Your task to perform on an android device: toggle javascript in the chrome app Image 0: 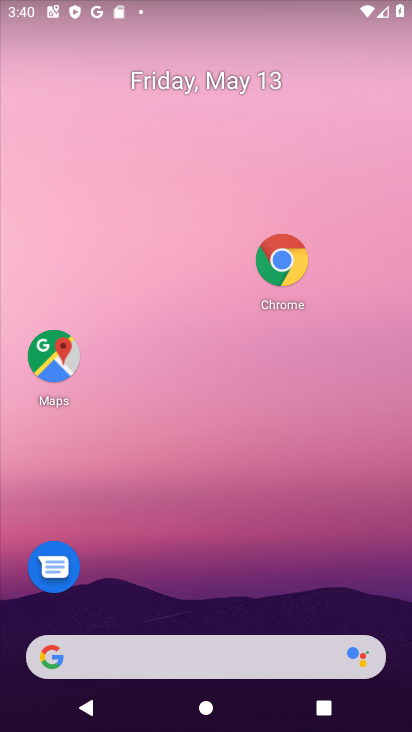
Step 0: drag from (293, 606) to (105, 86)
Your task to perform on an android device: toggle javascript in the chrome app Image 1: 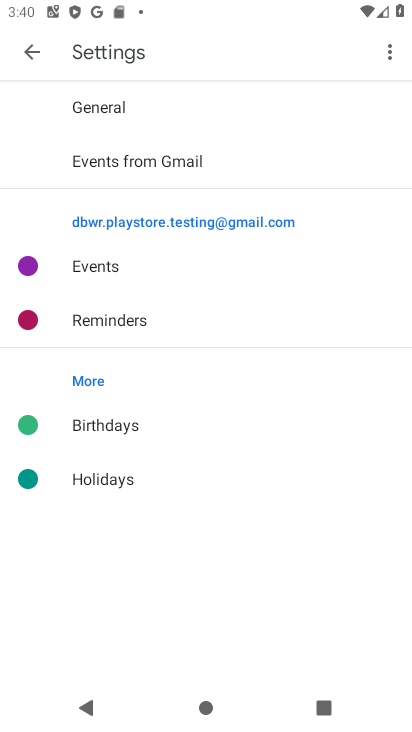
Step 1: press home button
Your task to perform on an android device: toggle javascript in the chrome app Image 2: 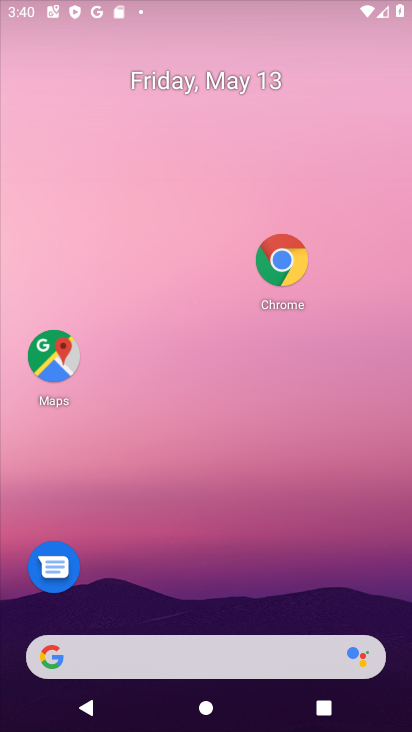
Step 2: drag from (228, 622) to (98, 109)
Your task to perform on an android device: toggle javascript in the chrome app Image 3: 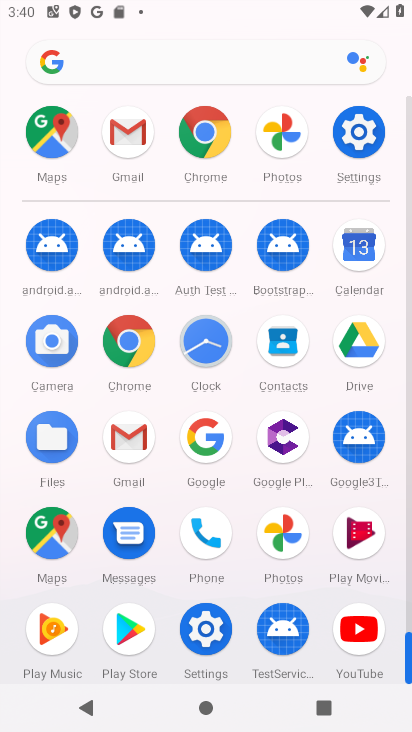
Step 3: click (201, 122)
Your task to perform on an android device: toggle javascript in the chrome app Image 4: 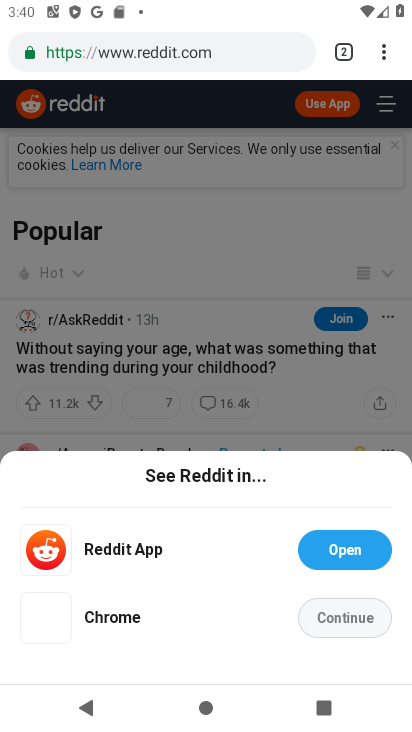
Step 4: click (390, 31)
Your task to perform on an android device: toggle javascript in the chrome app Image 5: 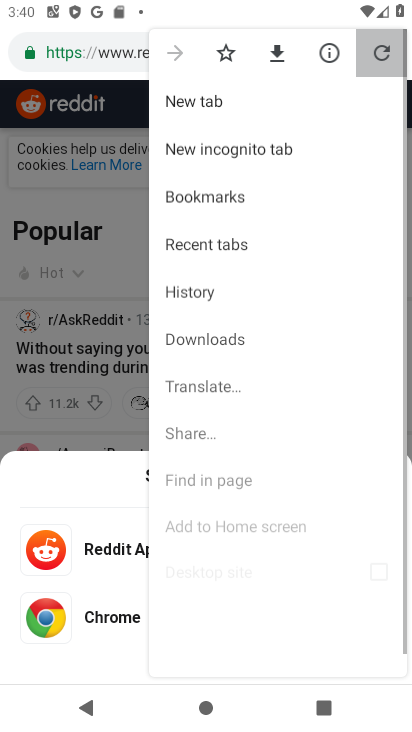
Step 5: click (378, 60)
Your task to perform on an android device: toggle javascript in the chrome app Image 6: 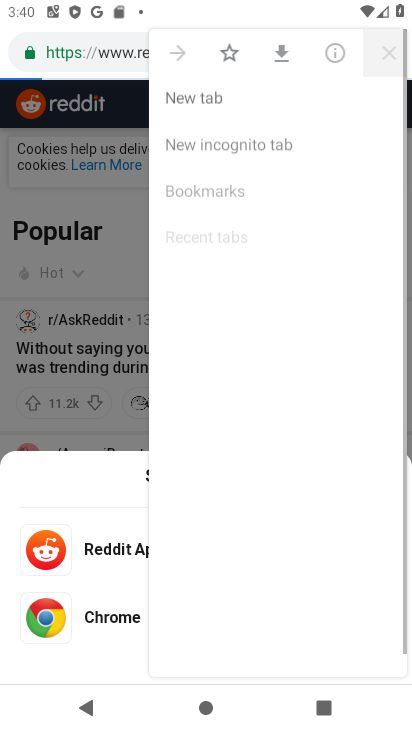
Step 6: drag from (364, 111) to (320, 280)
Your task to perform on an android device: toggle javascript in the chrome app Image 7: 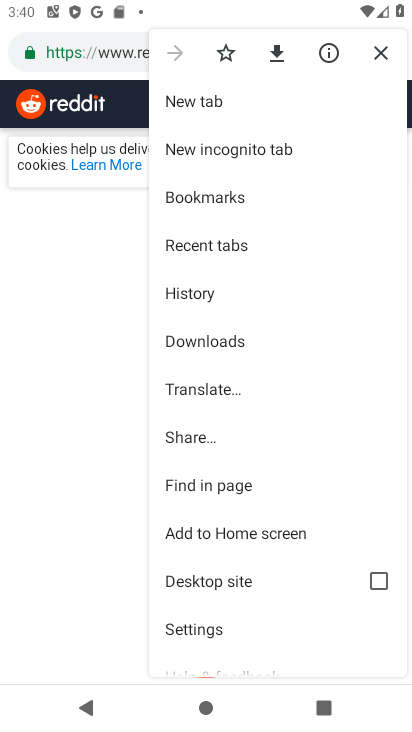
Step 7: drag from (230, 452) to (169, 104)
Your task to perform on an android device: toggle javascript in the chrome app Image 8: 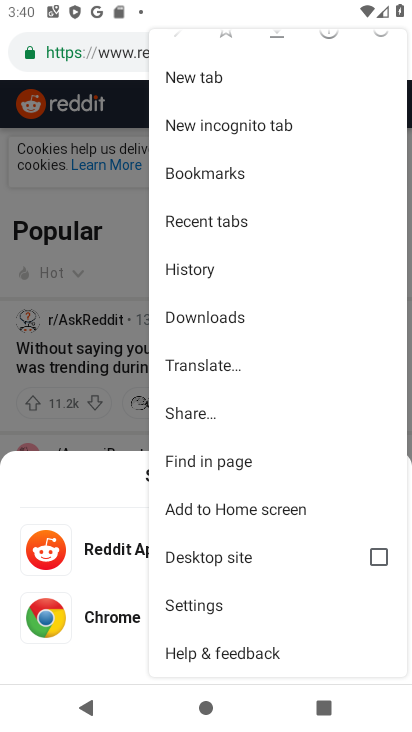
Step 8: drag from (238, 553) to (164, 55)
Your task to perform on an android device: toggle javascript in the chrome app Image 9: 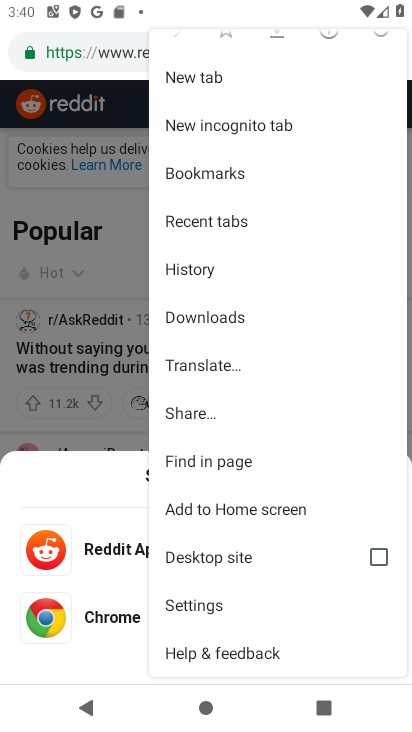
Step 9: click (198, 602)
Your task to perform on an android device: toggle javascript in the chrome app Image 10: 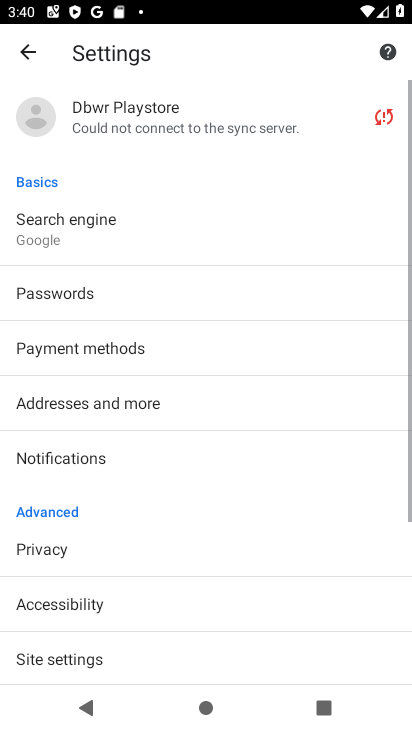
Step 10: drag from (169, 482) to (87, 59)
Your task to perform on an android device: toggle javascript in the chrome app Image 11: 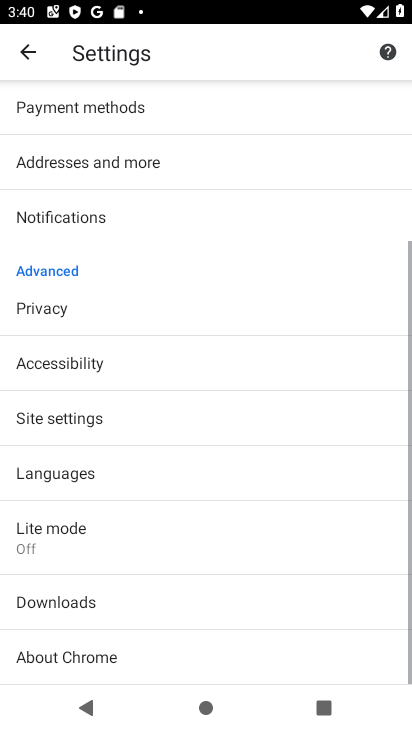
Step 11: drag from (159, 426) to (119, 14)
Your task to perform on an android device: toggle javascript in the chrome app Image 12: 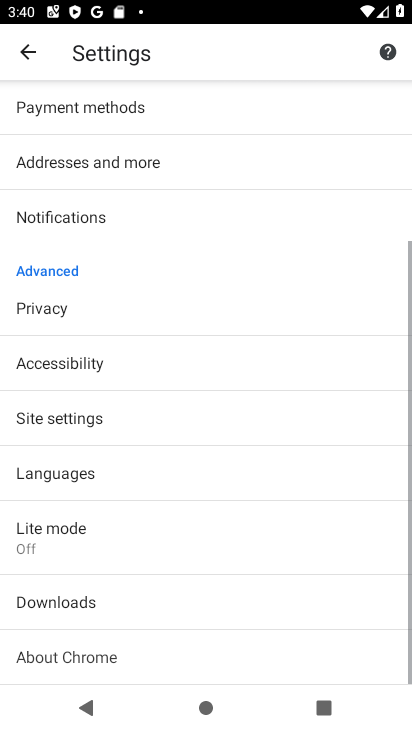
Step 12: drag from (122, 466) to (60, 12)
Your task to perform on an android device: toggle javascript in the chrome app Image 13: 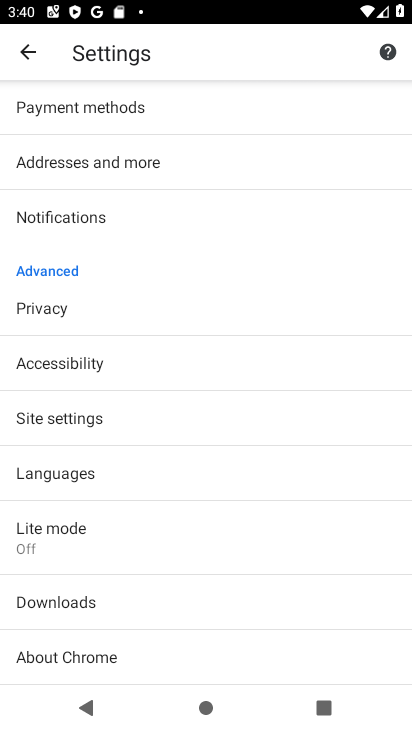
Step 13: click (53, 418)
Your task to perform on an android device: toggle javascript in the chrome app Image 14: 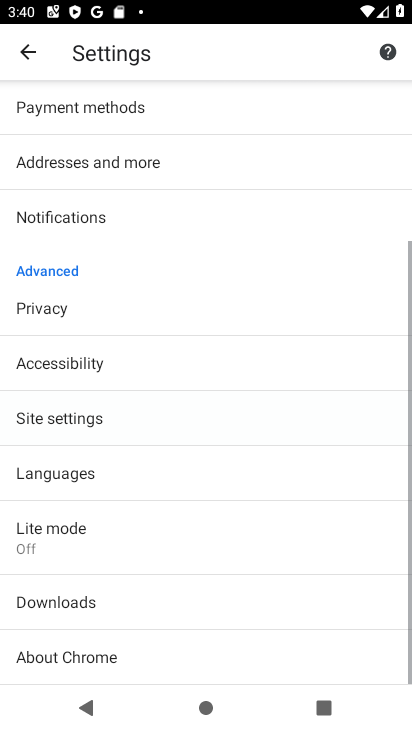
Step 14: click (54, 423)
Your task to perform on an android device: toggle javascript in the chrome app Image 15: 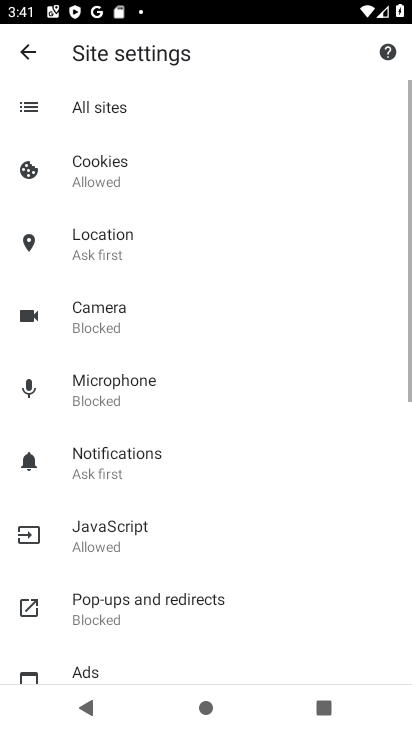
Step 15: click (56, 421)
Your task to perform on an android device: toggle javascript in the chrome app Image 16: 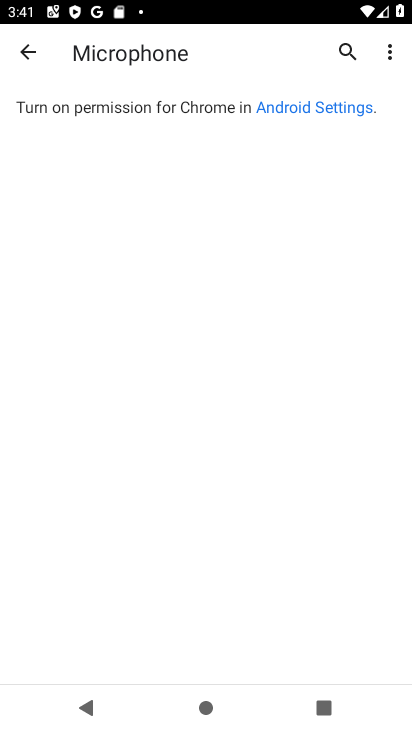
Step 16: click (14, 39)
Your task to perform on an android device: toggle javascript in the chrome app Image 17: 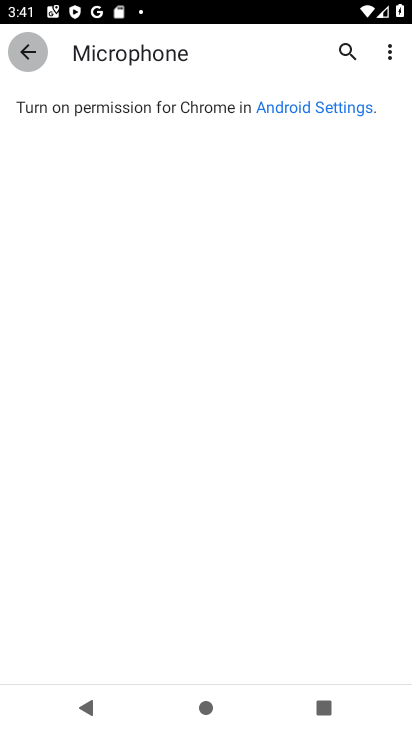
Step 17: click (14, 48)
Your task to perform on an android device: toggle javascript in the chrome app Image 18: 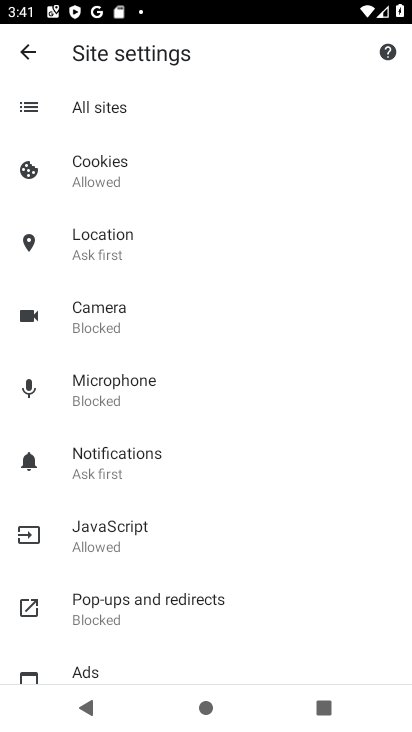
Step 18: click (75, 525)
Your task to perform on an android device: toggle javascript in the chrome app Image 19: 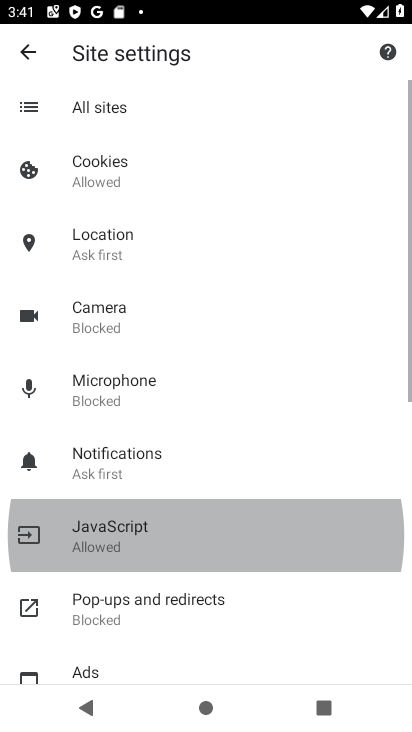
Step 19: click (76, 526)
Your task to perform on an android device: toggle javascript in the chrome app Image 20: 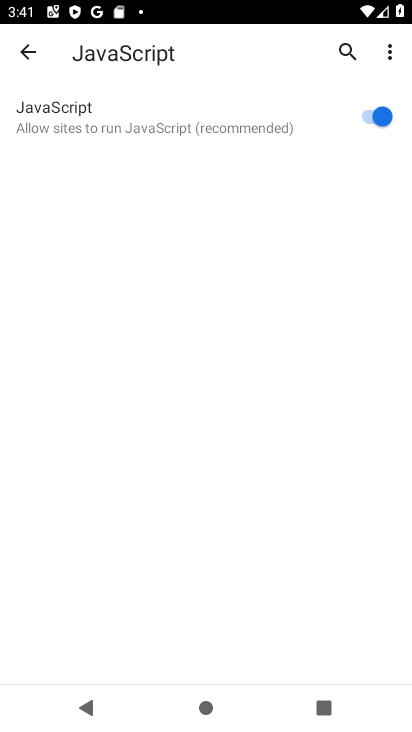
Step 20: click (375, 111)
Your task to perform on an android device: toggle javascript in the chrome app Image 21: 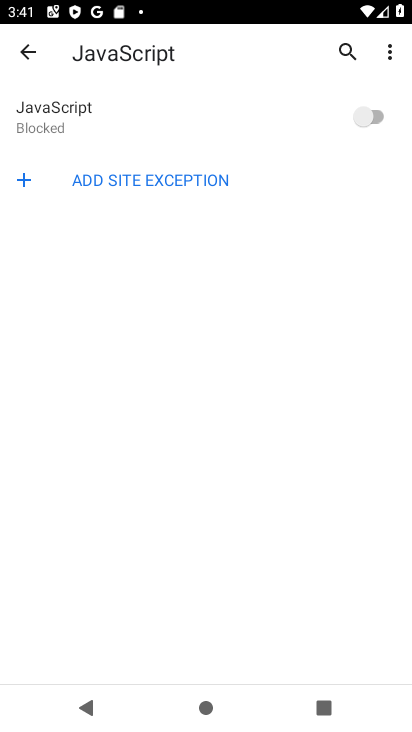
Step 21: task complete